Your task to perform on an android device: What's the latest news in space exploration? Image 0: 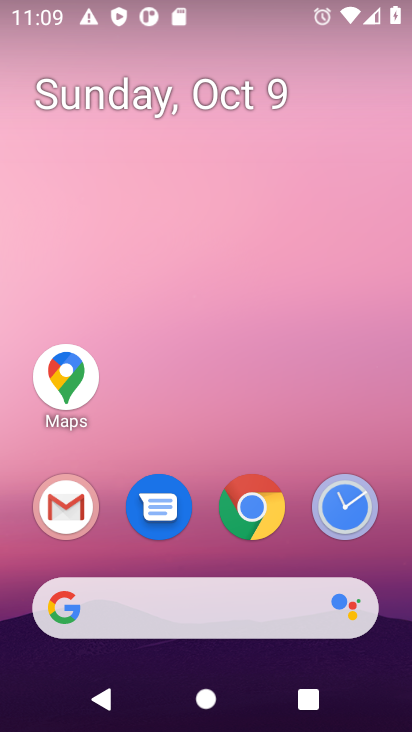
Step 0: click (224, 597)
Your task to perform on an android device: What's the latest news in space exploration? Image 1: 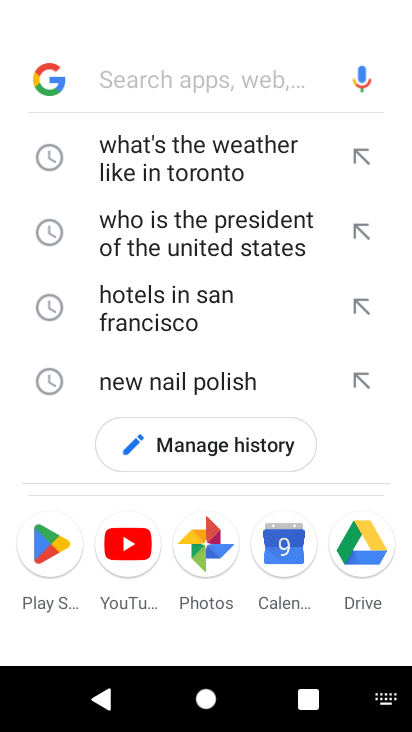
Step 1: type "What's the latest news in space exploration?"
Your task to perform on an android device: What's the latest news in space exploration? Image 2: 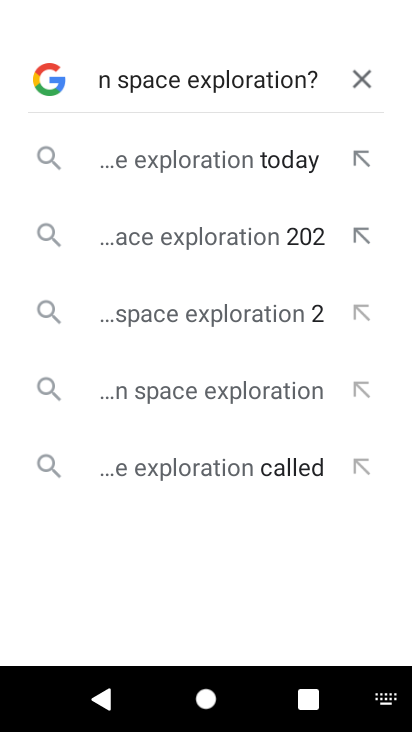
Step 2: press enter
Your task to perform on an android device: What's the latest news in space exploration? Image 3: 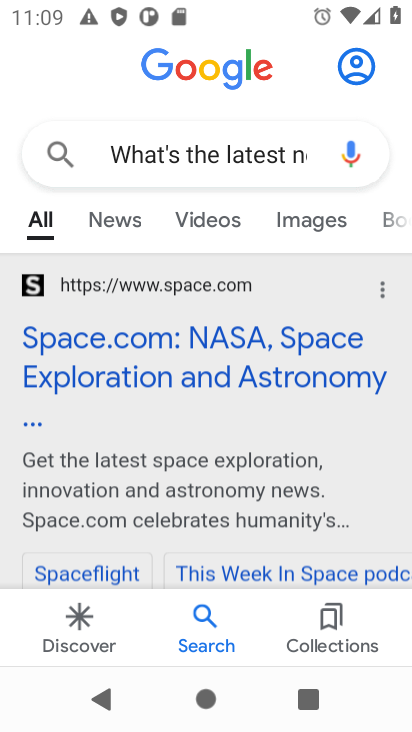
Step 3: drag from (282, 490) to (300, 311)
Your task to perform on an android device: What's the latest news in space exploration? Image 4: 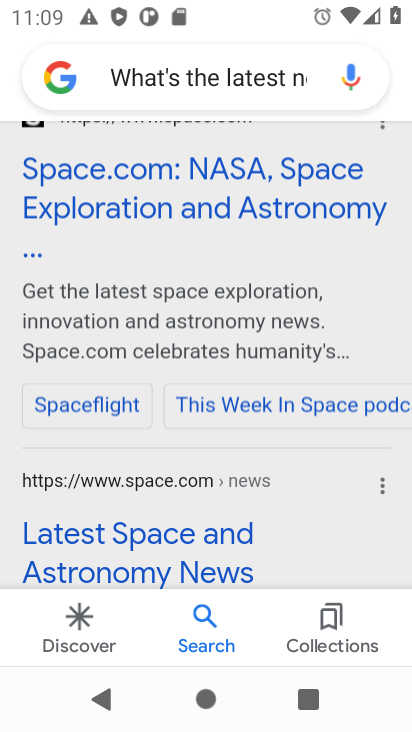
Step 4: click (293, 210)
Your task to perform on an android device: What's the latest news in space exploration? Image 5: 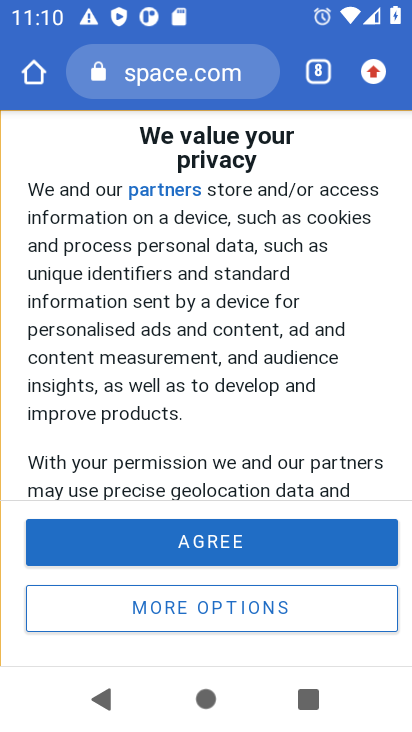
Step 5: click (228, 550)
Your task to perform on an android device: What's the latest news in space exploration? Image 6: 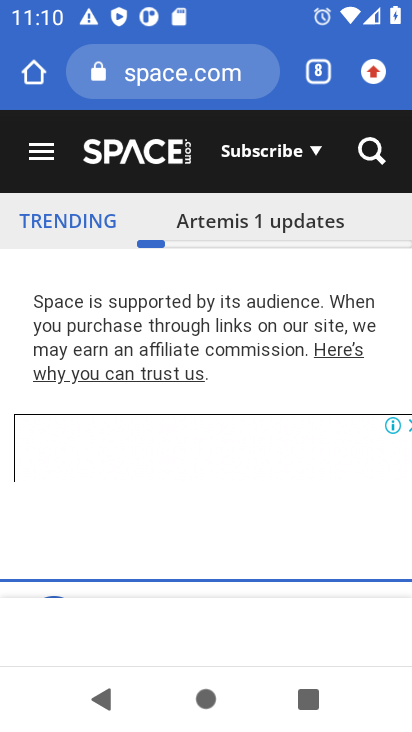
Step 6: task complete